Your task to perform on an android device: Open the calendar and show me this week's events? Image 0: 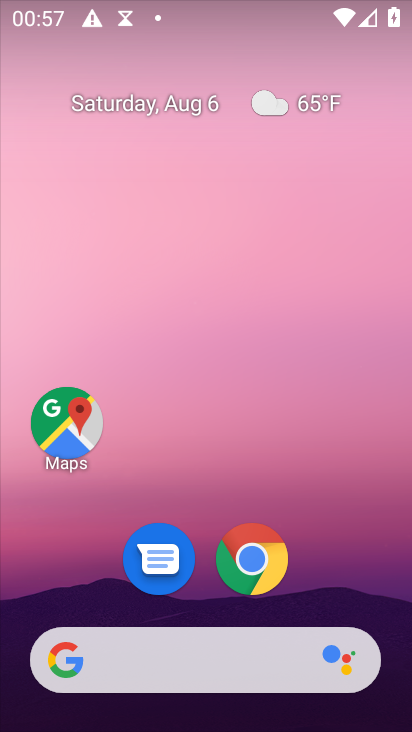
Step 0: drag from (335, 562) to (215, 90)
Your task to perform on an android device: Open the calendar and show me this week's events? Image 1: 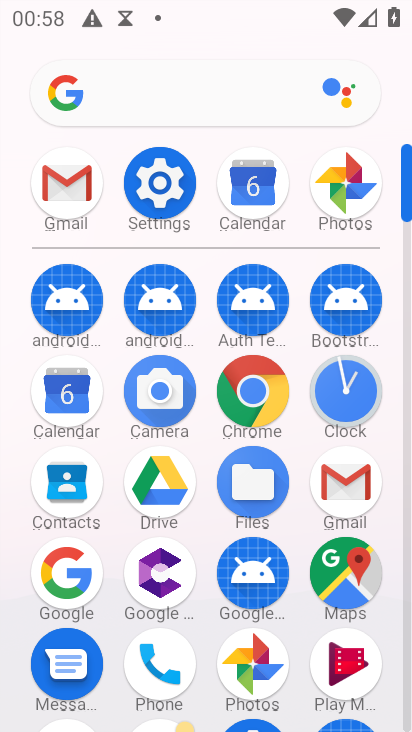
Step 1: click (58, 399)
Your task to perform on an android device: Open the calendar and show me this week's events? Image 2: 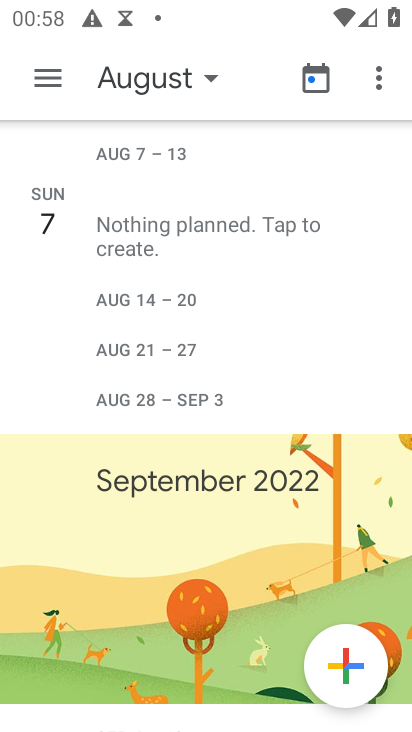
Step 2: click (48, 88)
Your task to perform on an android device: Open the calendar and show me this week's events? Image 3: 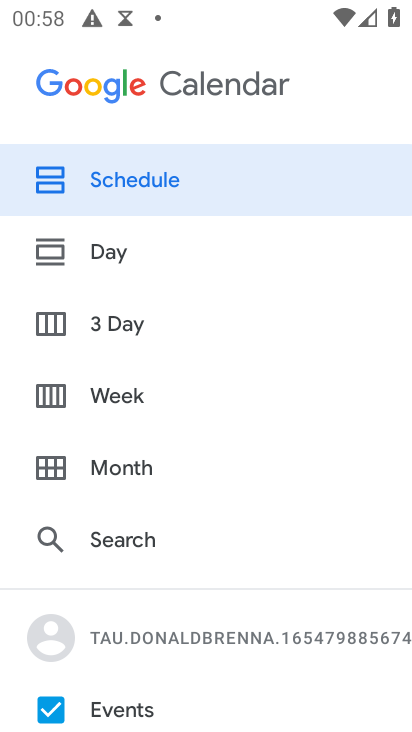
Step 3: click (147, 385)
Your task to perform on an android device: Open the calendar and show me this week's events? Image 4: 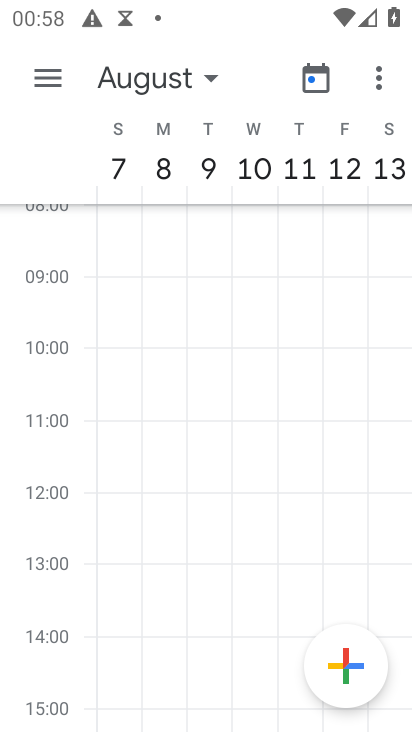
Step 4: task complete